Your task to perform on an android device: Show me popular videos on Youtube Image 0: 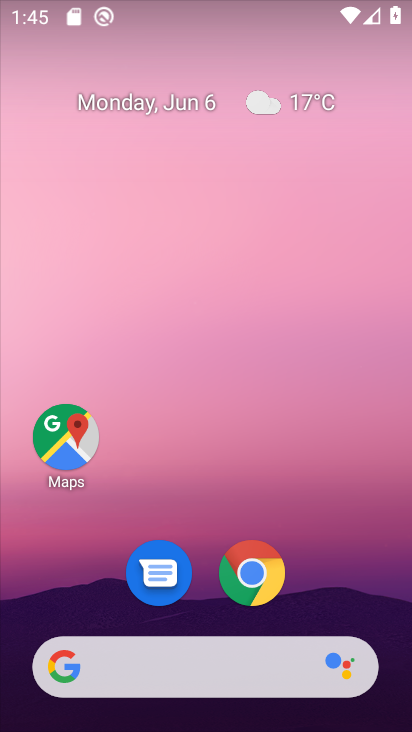
Step 0: drag from (399, 658) to (264, 78)
Your task to perform on an android device: Show me popular videos on Youtube Image 1: 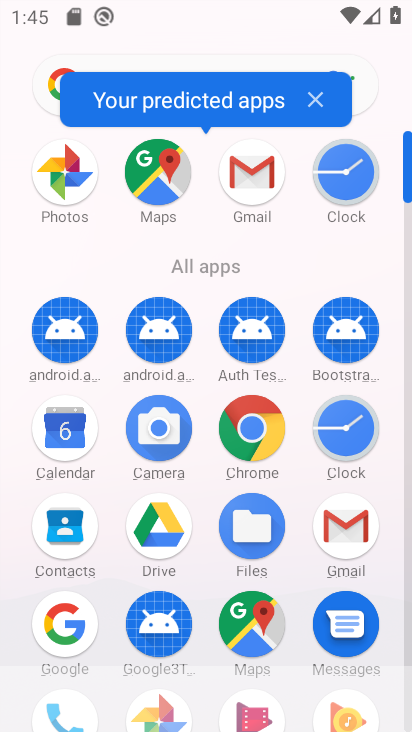
Step 1: drag from (296, 659) to (318, 167)
Your task to perform on an android device: Show me popular videos on Youtube Image 2: 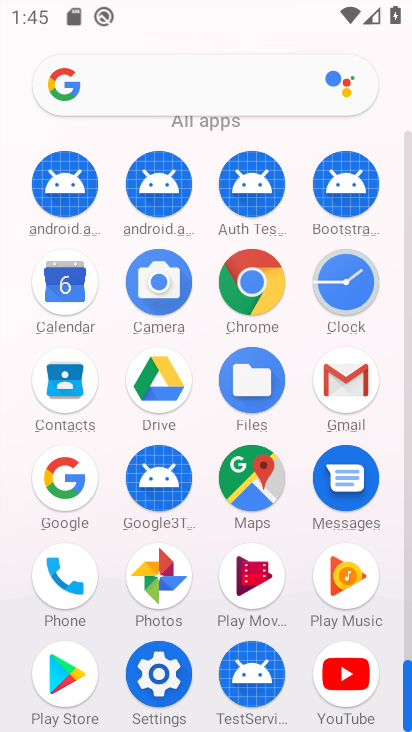
Step 2: click (338, 683)
Your task to perform on an android device: Show me popular videos on Youtube Image 3: 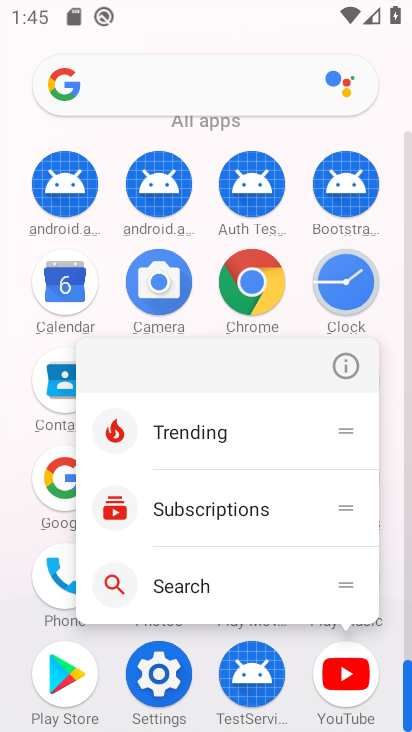
Step 3: click (325, 672)
Your task to perform on an android device: Show me popular videos on Youtube Image 4: 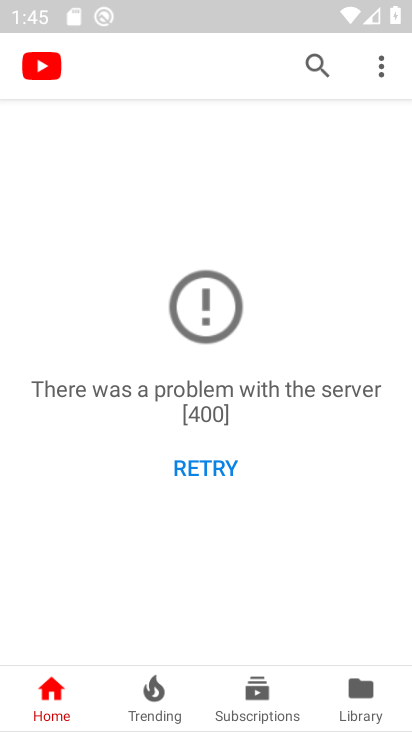
Step 4: task complete